Your task to perform on an android device: open device folders in google photos Image 0: 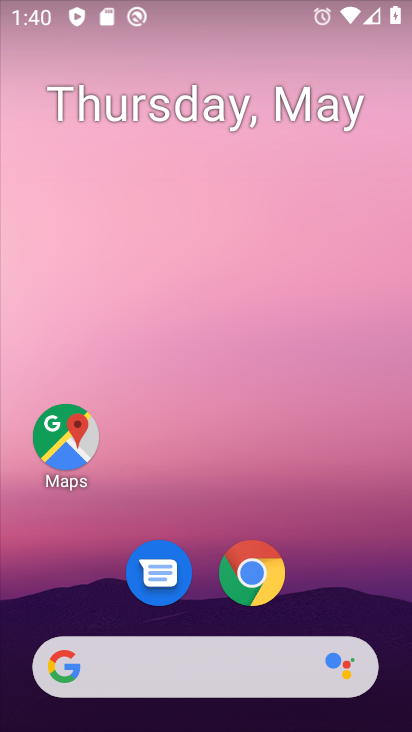
Step 0: drag from (390, 697) to (367, 187)
Your task to perform on an android device: open device folders in google photos Image 1: 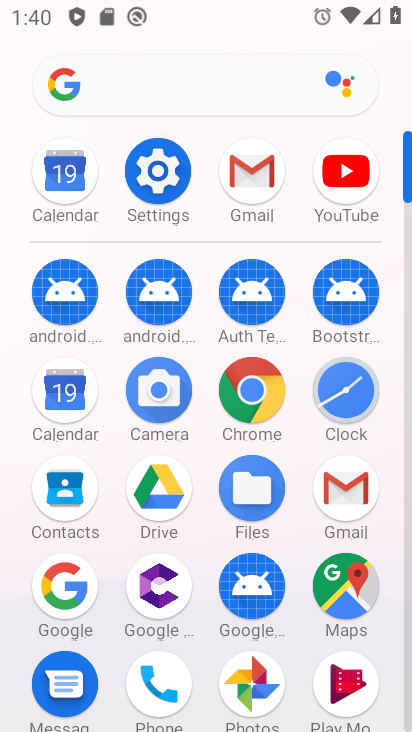
Step 1: click (251, 671)
Your task to perform on an android device: open device folders in google photos Image 2: 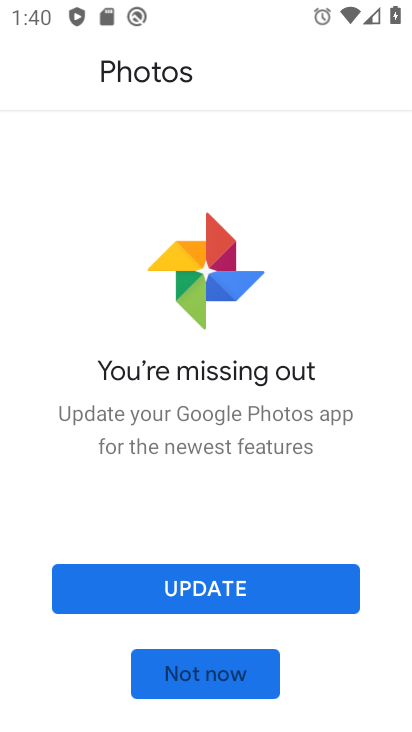
Step 2: click (255, 580)
Your task to perform on an android device: open device folders in google photos Image 3: 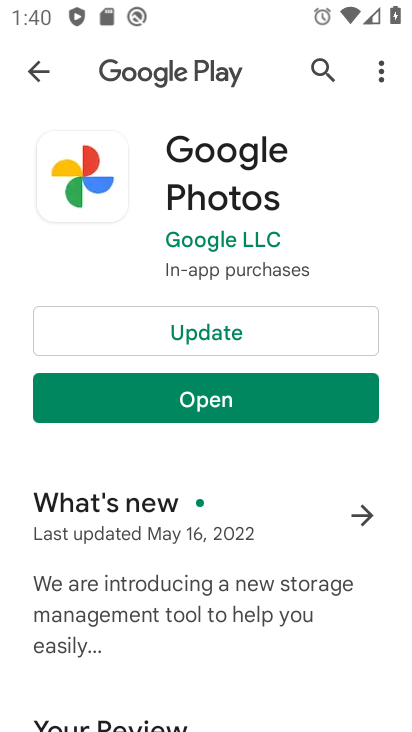
Step 3: click (197, 327)
Your task to perform on an android device: open device folders in google photos Image 4: 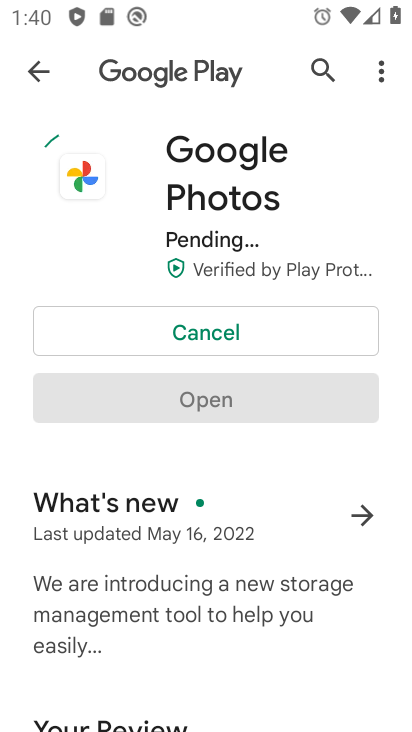
Step 4: click (197, 327)
Your task to perform on an android device: open device folders in google photos Image 5: 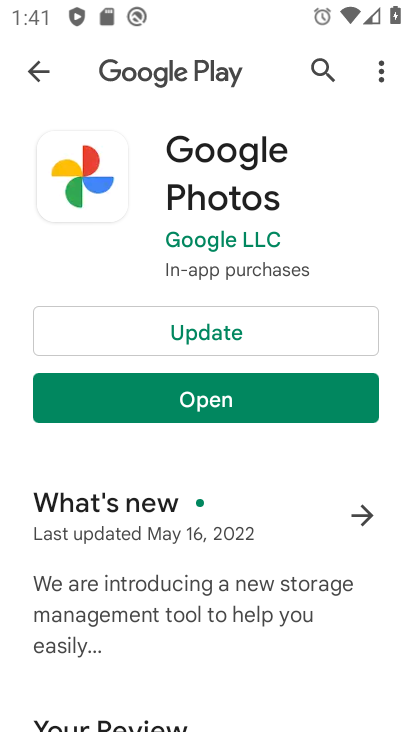
Step 5: click (261, 393)
Your task to perform on an android device: open device folders in google photos Image 6: 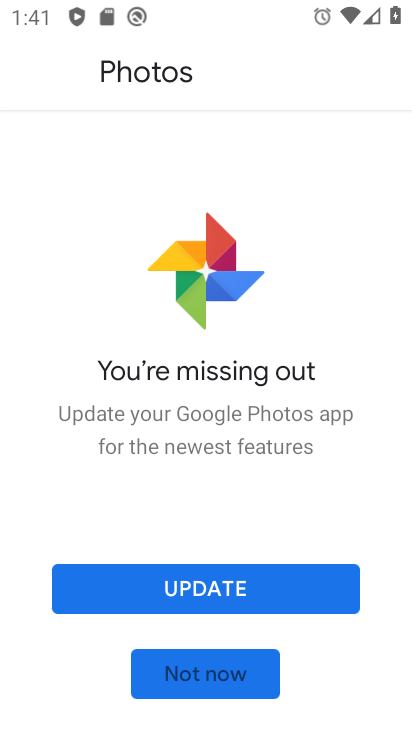
Step 6: click (197, 583)
Your task to perform on an android device: open device folders in google photos Image 7: 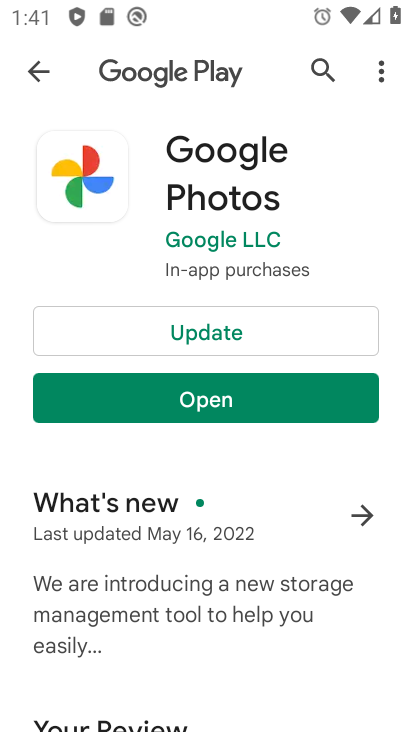
Step 7: click (221, 329)
Your task to perform on an android device: open device folders in google photos Image 8: 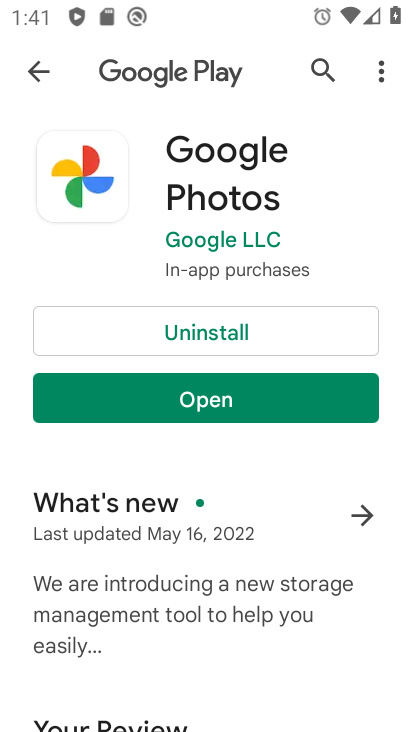
Step 8: click (225, 397)
Your task to perform on an android device: open device folders in google photos Image 9: 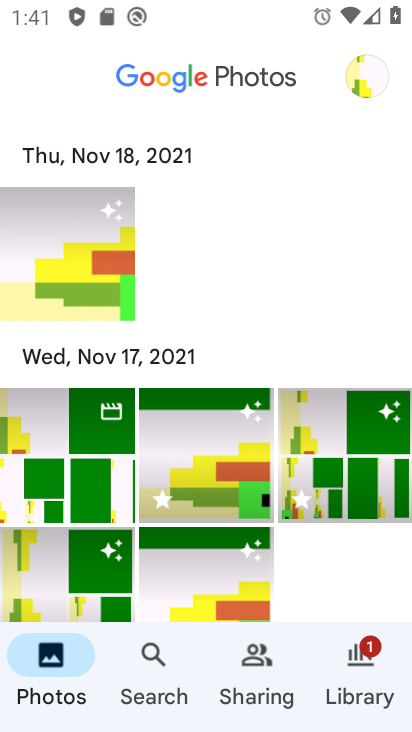
Step 9: task complete